Your task to perform on an android device: turn notification dots off Image 0: 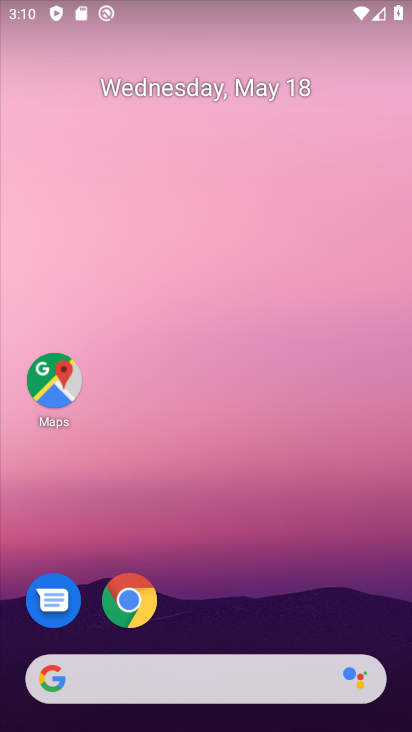
Step 0: drag from (178, 646) to (268, 106)
Your task to perform on an android device: turn notification dots off Image 1: 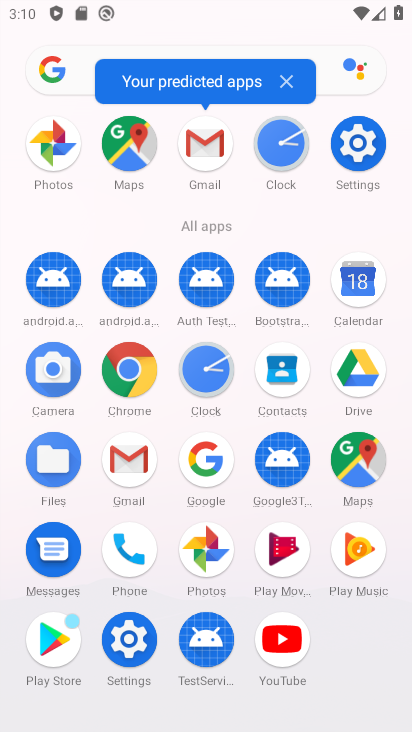
Step 1: click (140, 660)
Your task to perform on an android device: turn notification dots off Image 2: 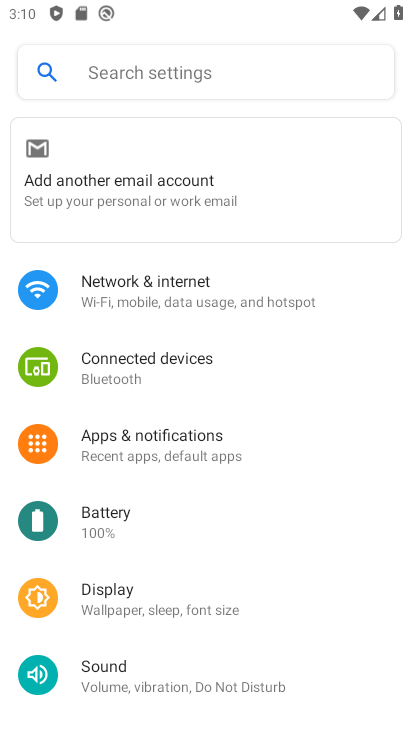
Step 2: click (229, 453)
Your task to perform on an android device: turn notification dots off Image 3: 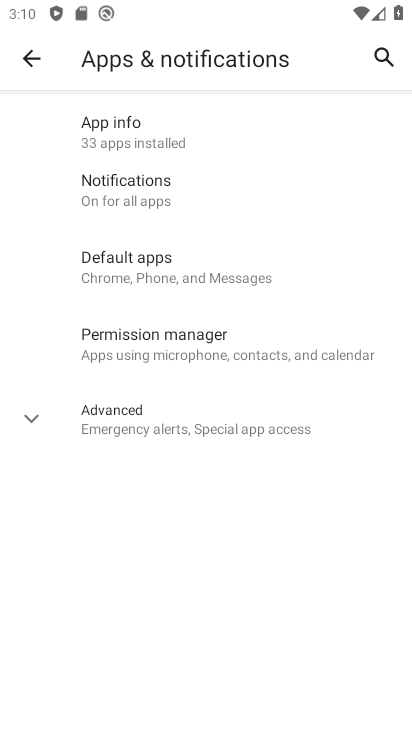
Step 3: click (175, 214)
Your task to perform on an android device: turn notification dots off Image 4: 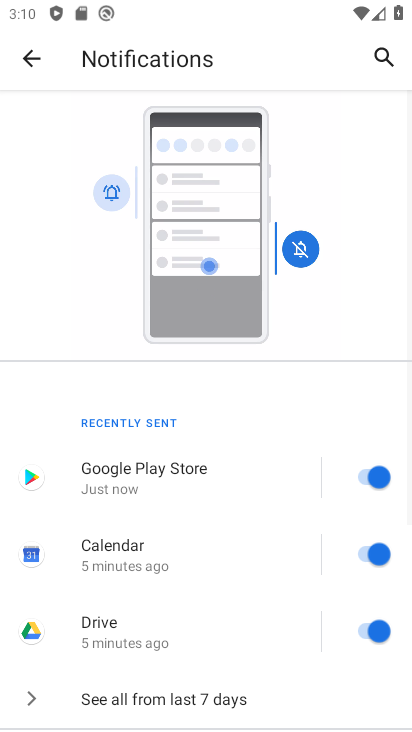
Step 4: drag from (142, 617) to (250, 150)
Your task to perform on an android device: turn notification dots off Image 5: 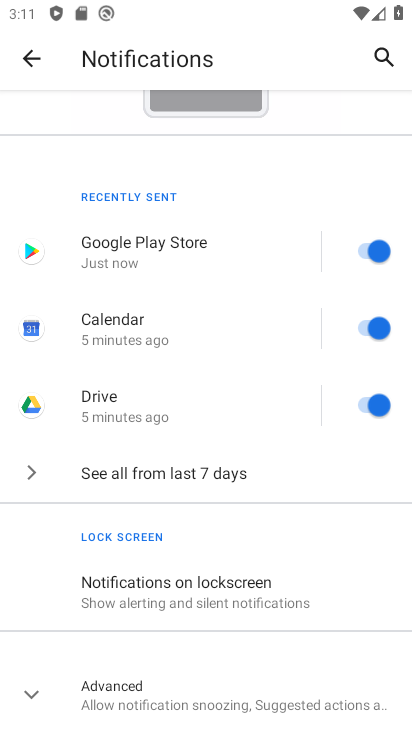
Step 5: click (171, 696)
Your task to perform on an android device: turn notification dots off Image 6: 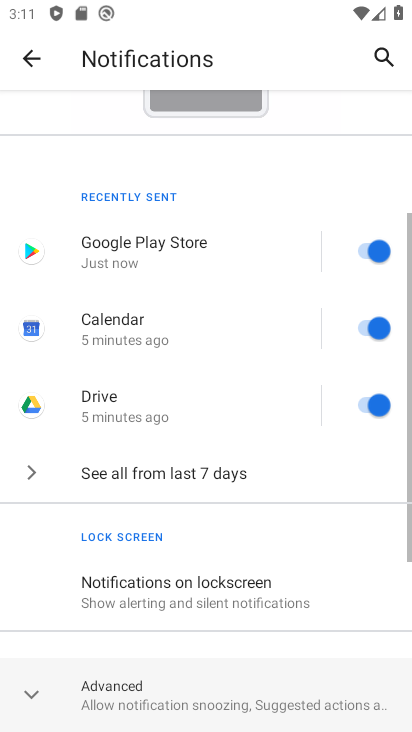
Step 6: drag from (169, 693) to (222, 328)
Your task to perform on an android device: turn notification dots off Image 7: 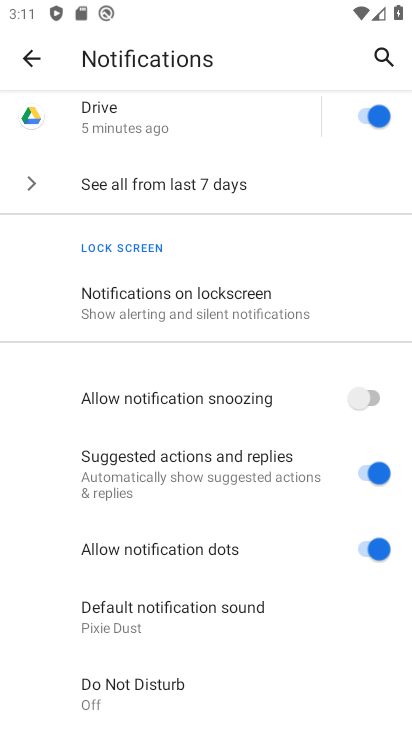
Step 7: click (373, 554)
Your task to perform on an android device: turn notification dots off Image 8: 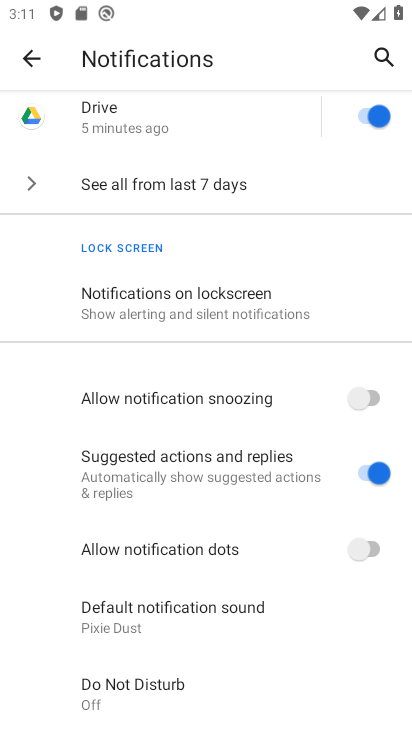
Step 8: task complete